Your task to perform on an android device: toggle javascript in the chrome app Image 0: 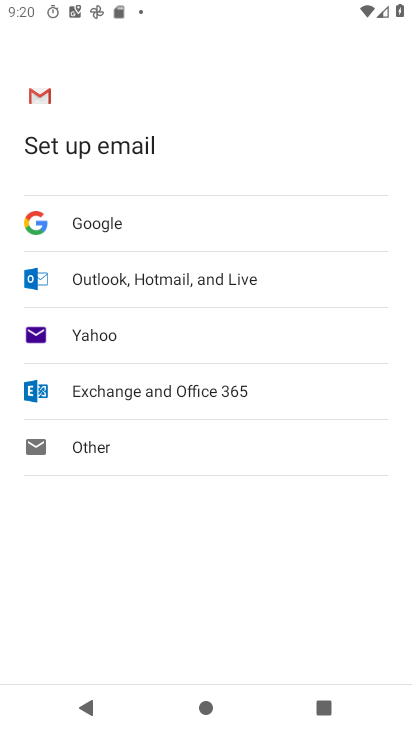
Step 0: press home button
Your task to perform on an android device: toggle javascript in the chrome app Image 1: 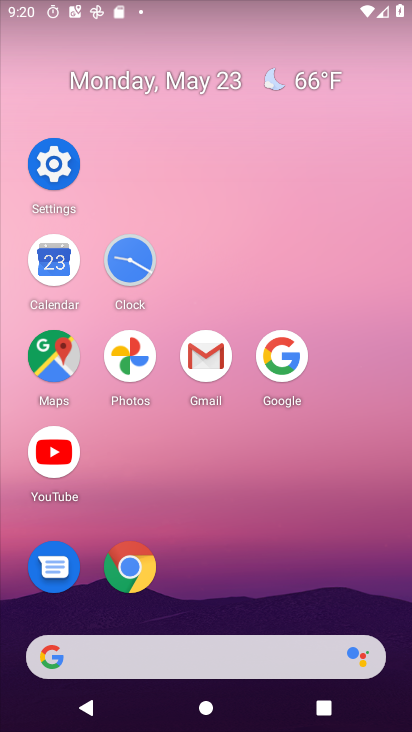
Step 1: click (133, 594)
Your task to perform on an android device: toggle javascript in the chrome app Image 2: 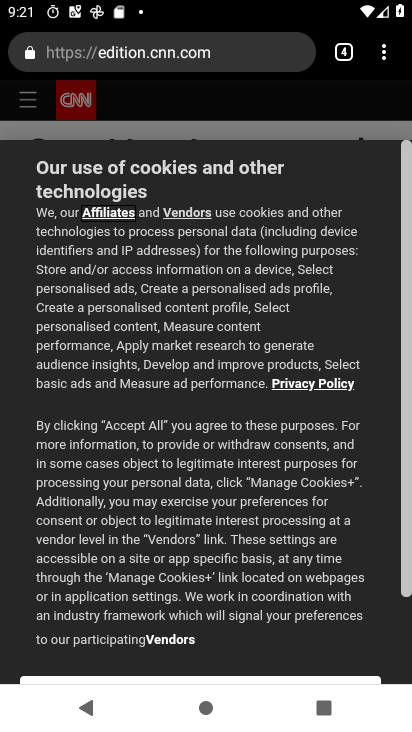
Step 2: click (395, 66)
Your task to perform on an android device: toggle javascript in the chrome app Image 3: 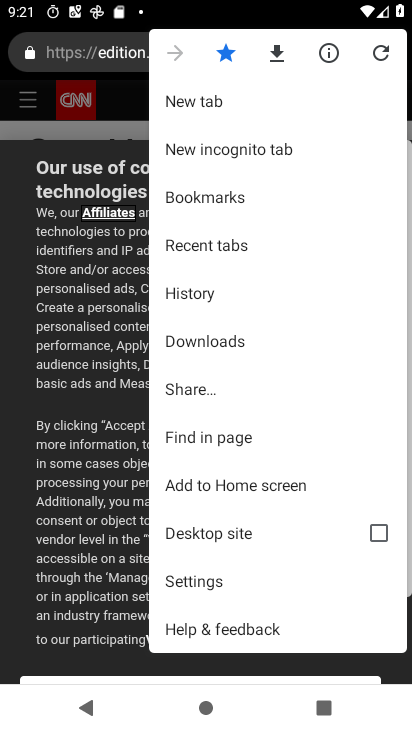
Step 3: click (195, 580)
Your task to perform on an android device: toggle javascript in the chrome app Image 4: 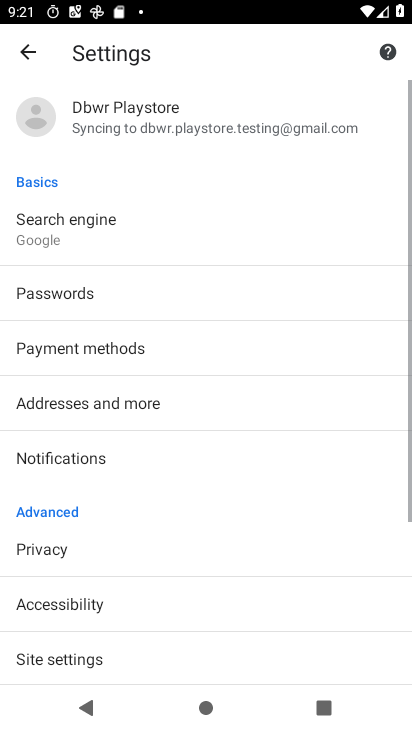
Step 4: drag from (195, 580) to (253, 207)
Your task to perform on an android device: toggle javascript in the chrome app Image 5: 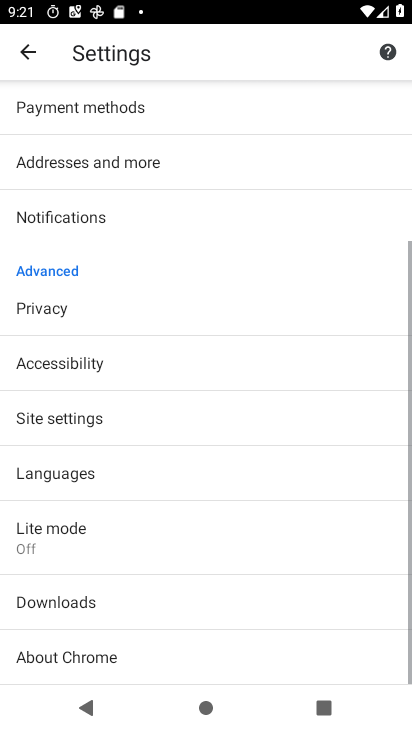
Step 5: click (143, 420)
Your task to perform on an android device: toggle javascript in the chrome app Image 6: 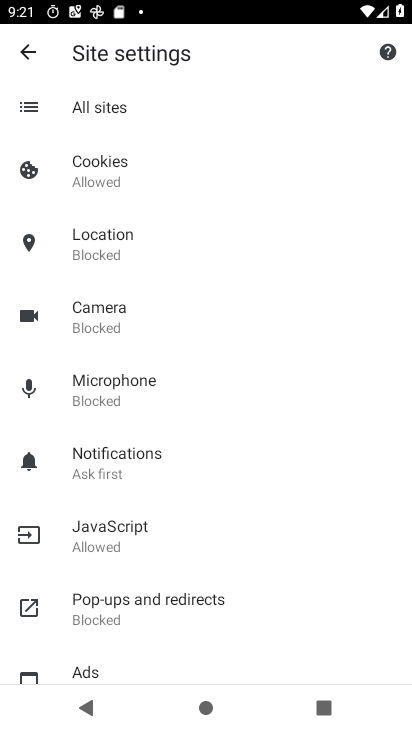
Step 6: click (117, 520)
Your task to perform on an android device: toggle javascript in the chrome app Image 7: 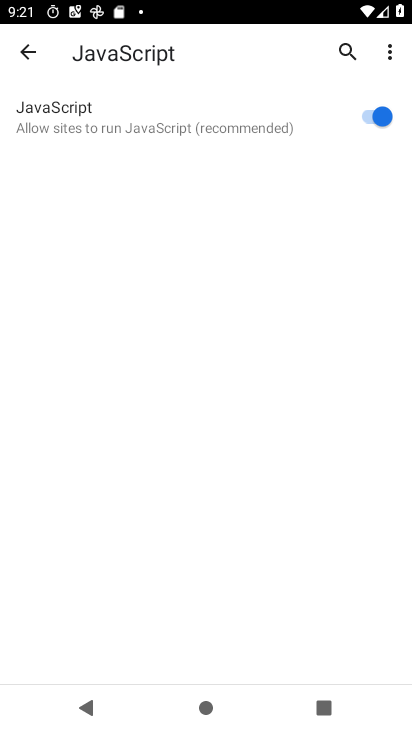
Step 7: click (363, 116)
Your task to perform on an android device: toggle javascript in the chrome app Image 8: 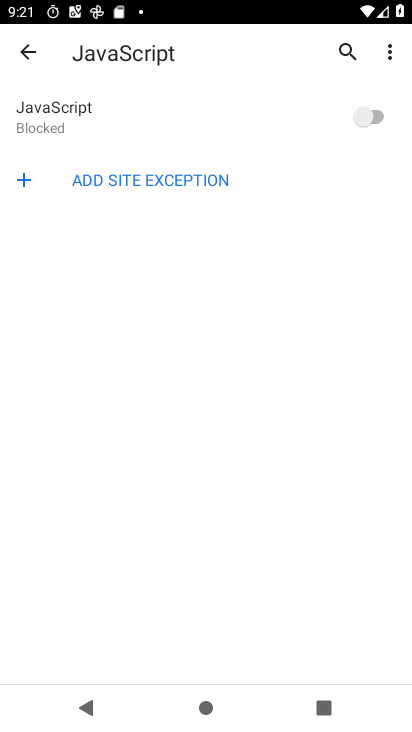
Step 8: task complete